Your task to perform on an android device: turn off sleep mode Image 0: 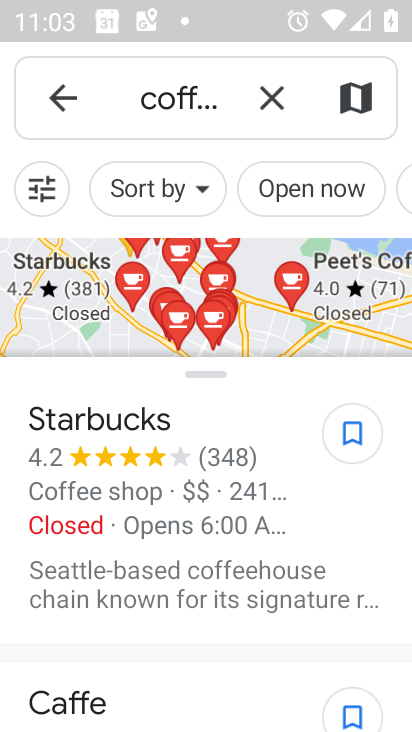
Step 0: press home button
Your task to perform on an android device: turn off sleep mode Image 1: 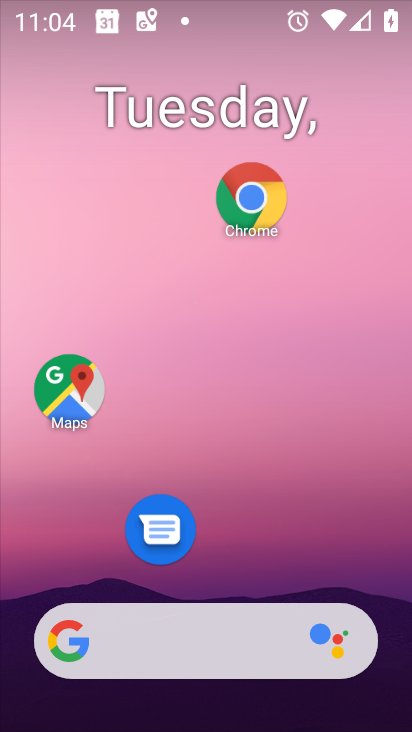
Step 1: drag from (348, 571) to (321, 63)
Your task to perform on an android device: turn off sleep mode Image 2: 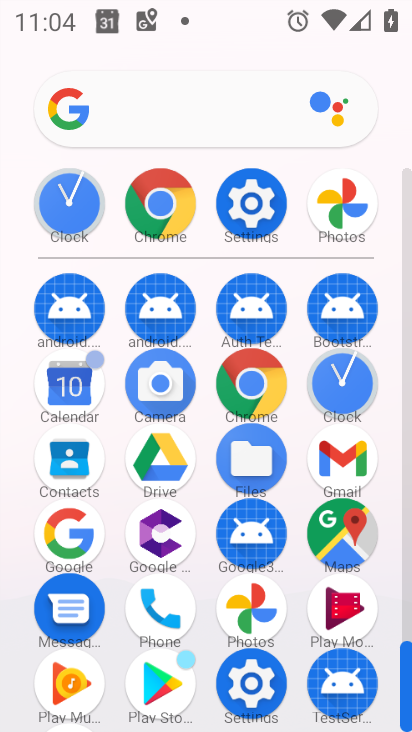
Step 2: click (226, 214)
Your task to perform on an android device: turn off sleep mode Image 3: 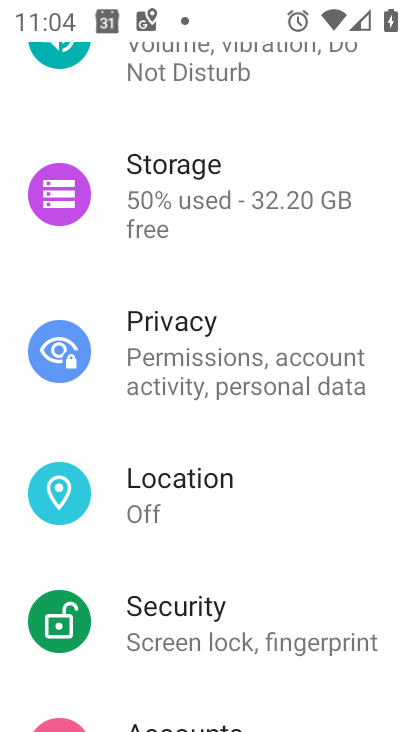
Step 3: drag from (218, 229) to (188, 636)
Your task to perform on an android device: turn off sleep mode Image 4: 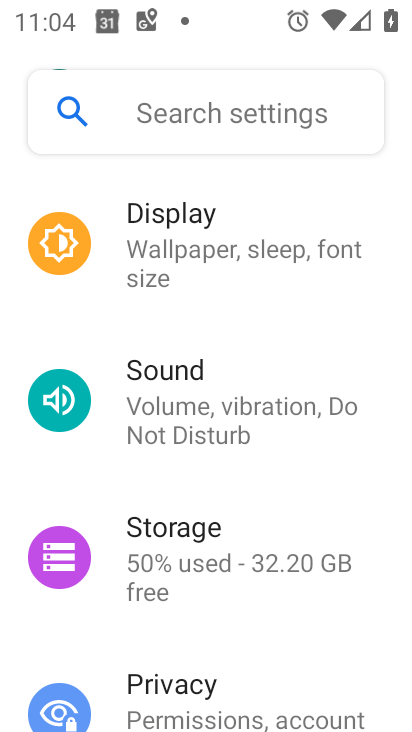
Step 4: drag from (188, 481) to (171, 622)
Your task to perform on an android device: turn off sleep mode Image 5: 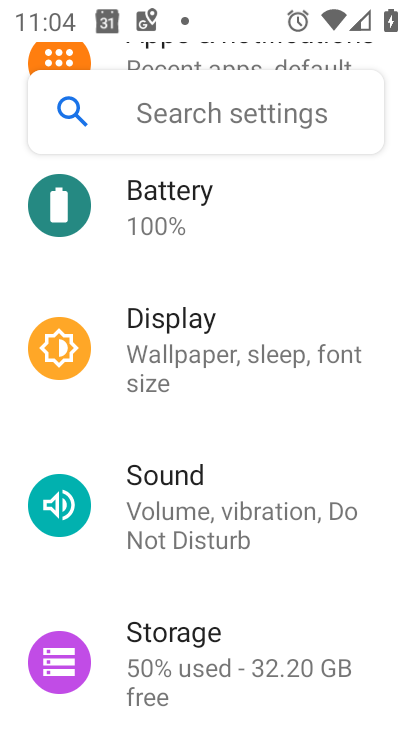
Step 5: click (144, 396)
Your task to perform on an android device: turn off sleep mode Image 6: 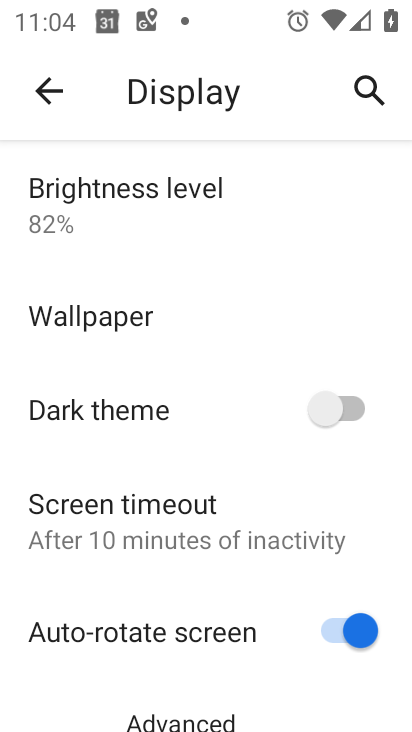
Step 6: click (171, 535)
Your task to perform on an android device: turn off sleep mode Image 7: 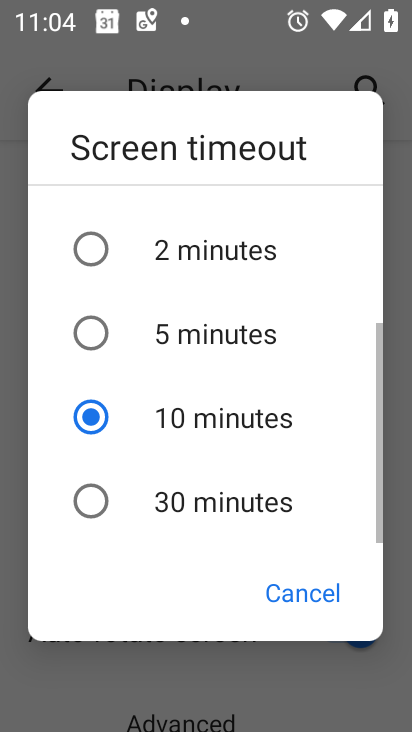
Step 7: click (231, 250)
Your task to perform on an android device: turn off sleep mode Image 8: 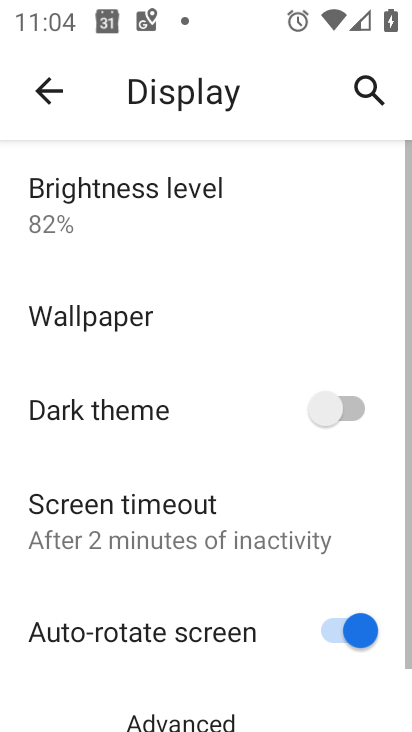
Step 8: task complete